Your task to perform on an android device: What's the weather going to be this weekend? Image 0: 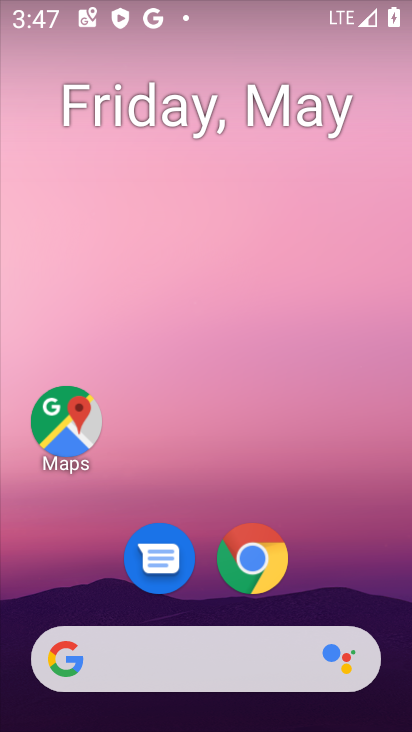
Step 0: press home button
Your task to perform on an android device: What's the weather going to be this weekend? Image 1: 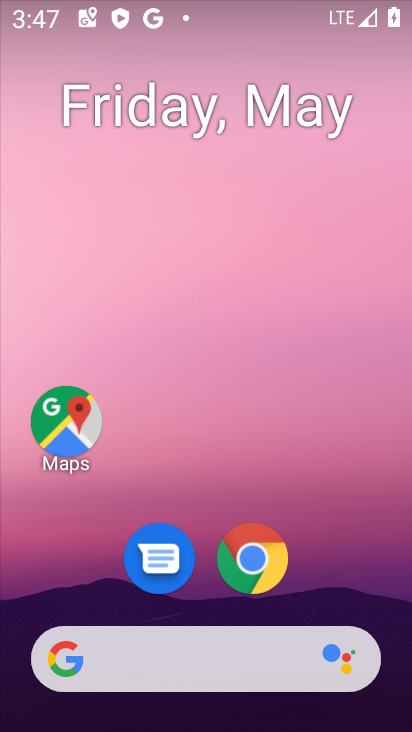
Step 1: click (73, 657)
Your task to perform on an android device: What's the weather going to be this weekend? Image 2: 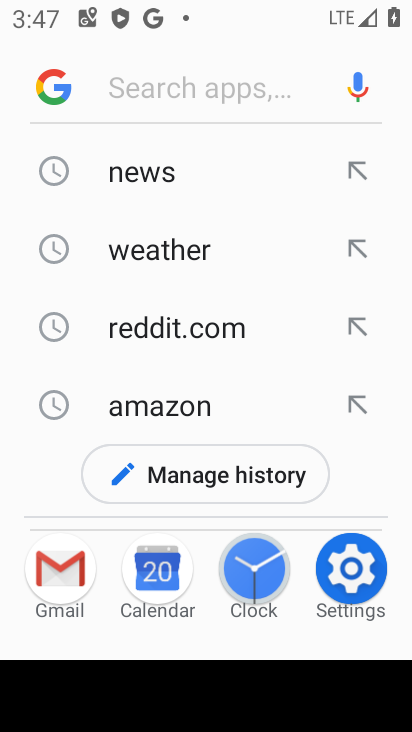
Step 2: click (184, 253)
Your task to perform on an android device: What's the weather going to be this weekend? Image 3: 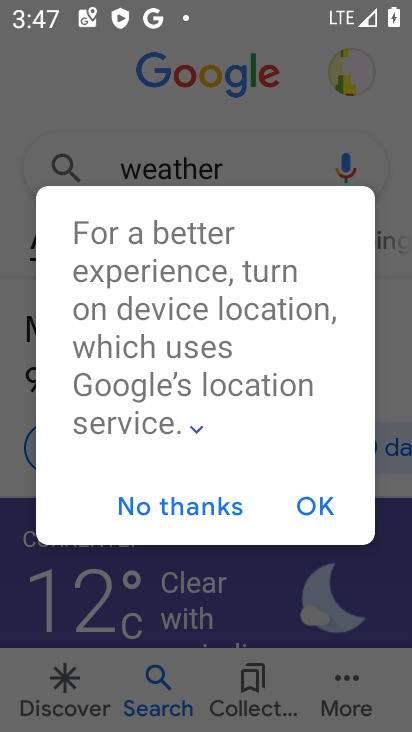
Step 3: click (317, 515)
Your task to perform on an android device: What's the weather going to be this weekend? Image 4: 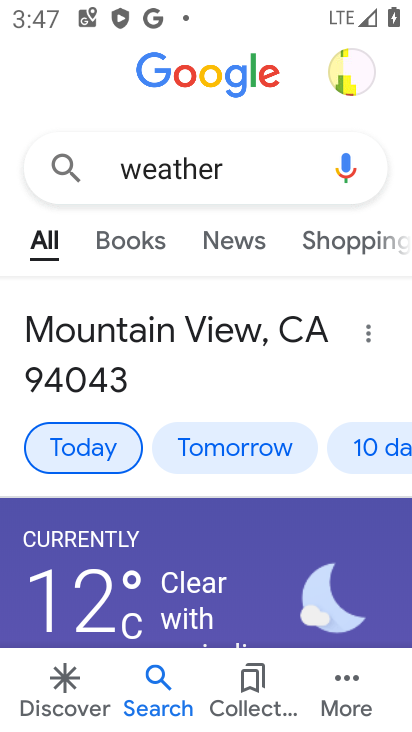
Step 4: click (381, 442)
Your task to perform on an android device: What's the weather going to be this weekend? Image 5: 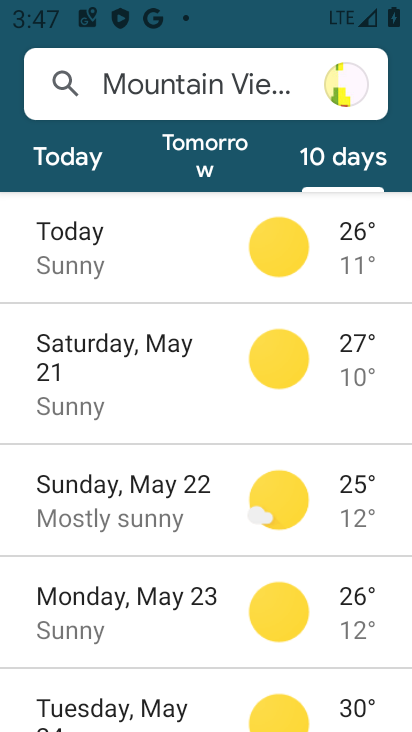
Step 5: click (129, 386)
Your task to perform on an android device: What's the weather going to be this weekend? Image 6: 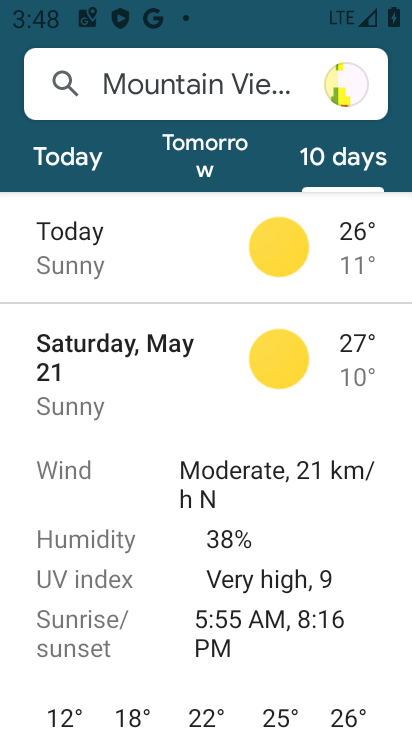
Step 6: task complete